Your task to perform on an android device: Show me popular videos on Youtube Image 0: 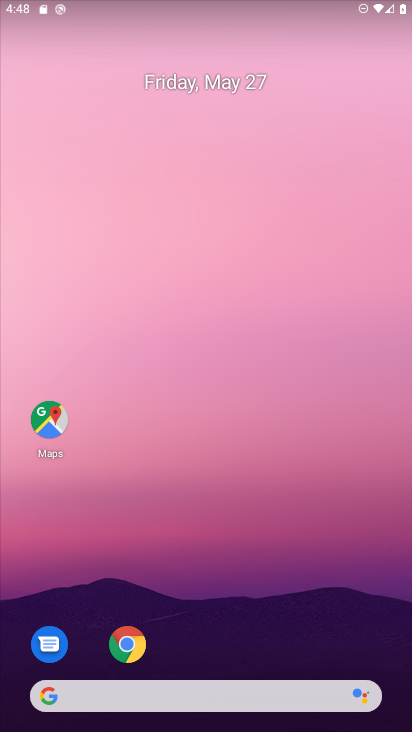
Step 0: drag from (208, 650) to (190, 200)
Your task to perform on an android device: Show me popular videos on Youtube Image 1: 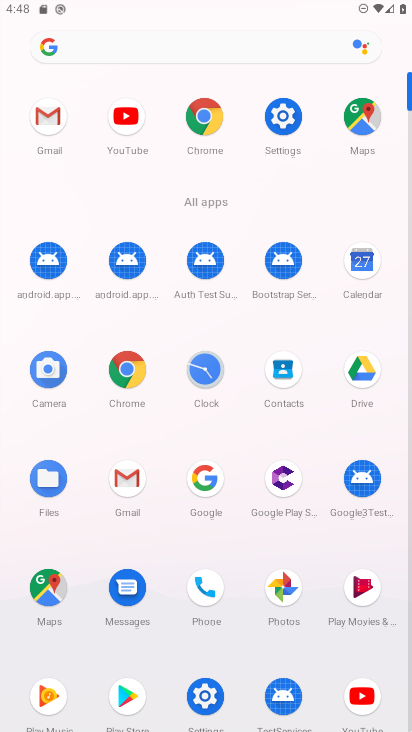
Step 1: click (129, 109)
Your task to perform on an android device: Show me popular videos on Youtube Image 2: 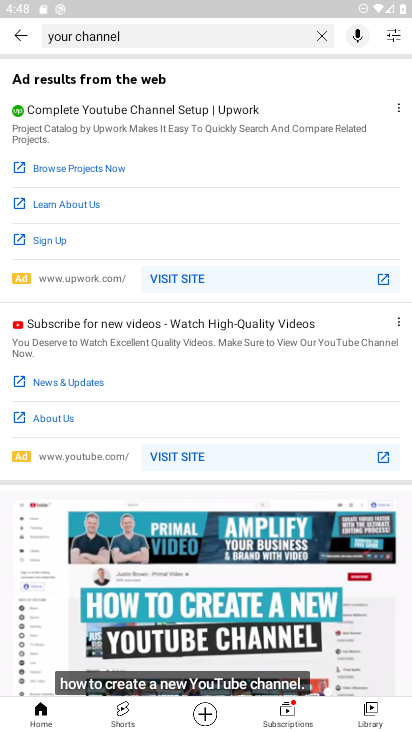
Step 2: click (36, 701)
Your task to perform on an android device: Show me popular videos on Youtube Image 3: 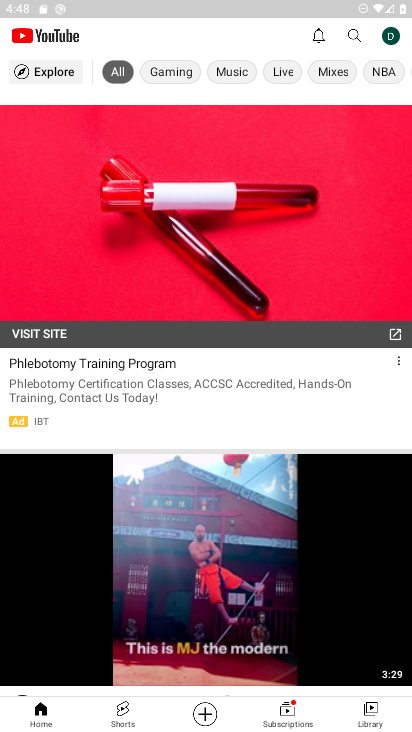
Step 3: click (71, 73)
Your task to perform on an android device: Show me popular videos on Youtube Image 4: 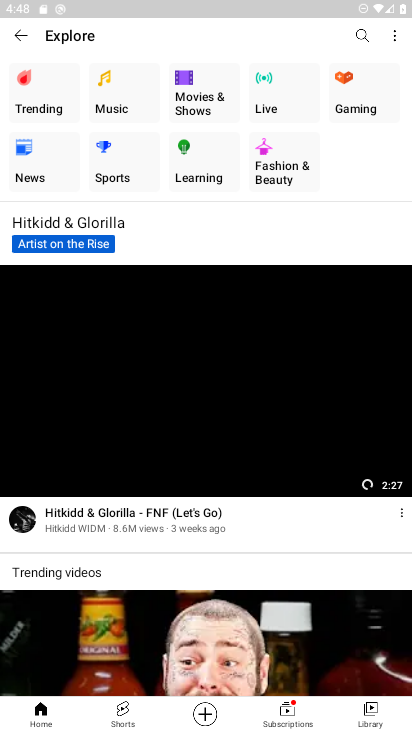
Step 4: click (46, 78)
Your task to perform on an android device: Show me popular videos on Youtube Image 5: 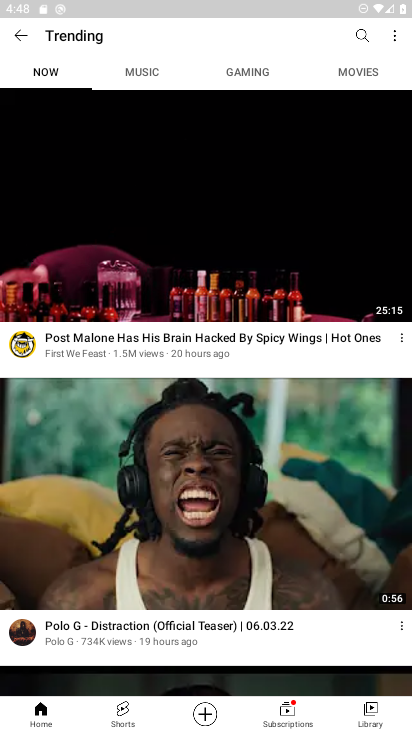
Step 5: task complete